Your task to perform on an android device: Open Maps and search for coffee Image 0: 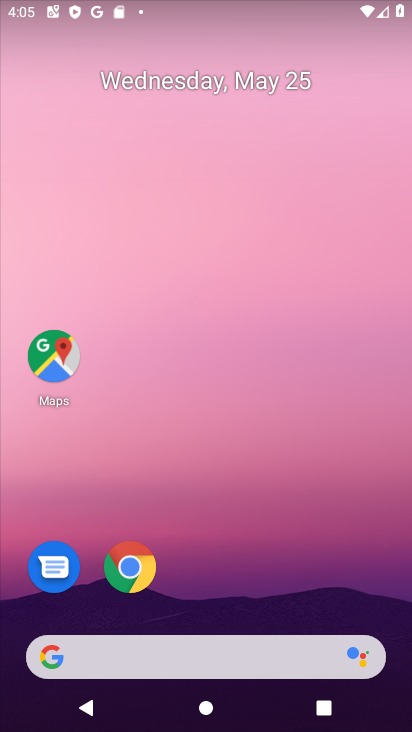
Step 0: drag from (248, 497) to (213, 34)
Your task to perform on an android device: Open Maps and search for coffee Image 1: 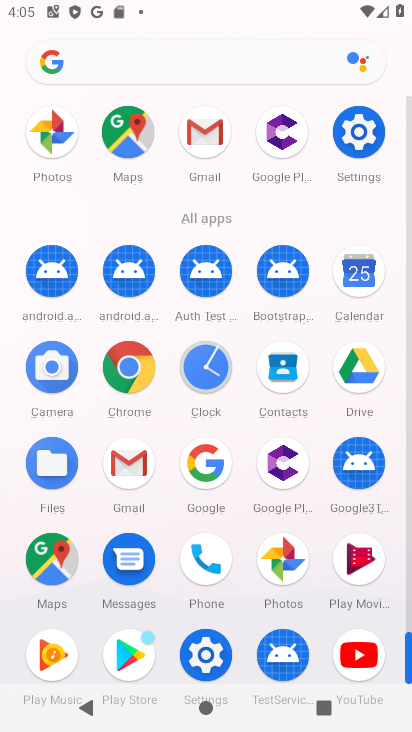
Step 1: drag from (1, 530) to (22, 261)
Your task to perform on an android device: Open Maps and search for coffee Image 2: 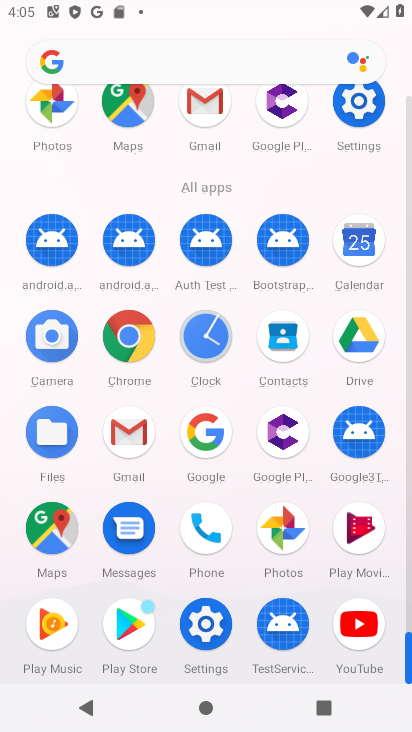
Step 2: click (51, 535)
Your task to perform on an android device: Open Maps and search for coffee Image 3: 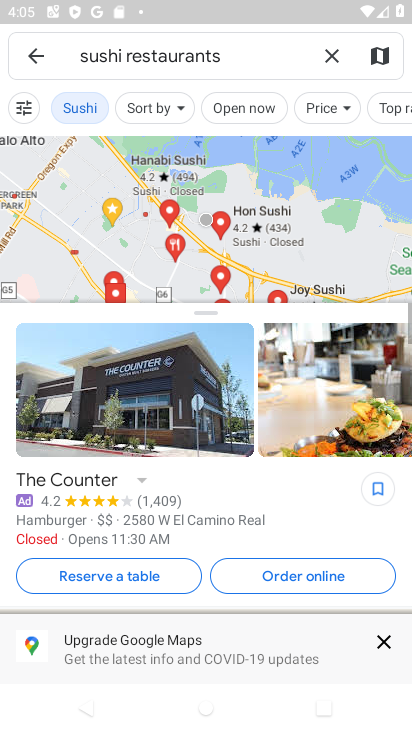
Step 3: click (334, 55)
Your task to perform on an android device: Open Maps and search for coffee Image 4: 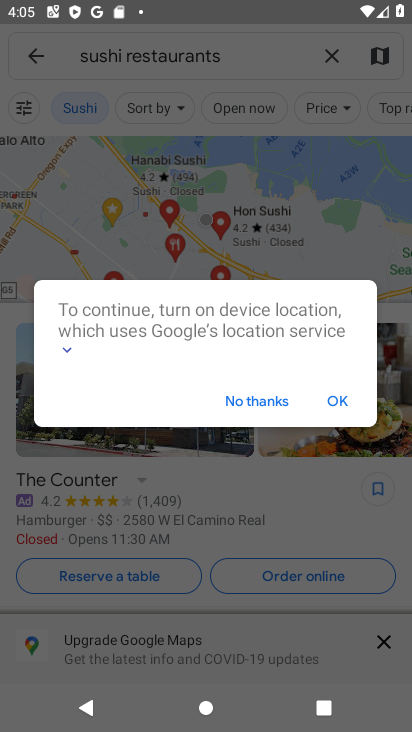
Step 4: click (260, 405)
Your task to perform on an android device: Open Maps and search for coffee Image 5: 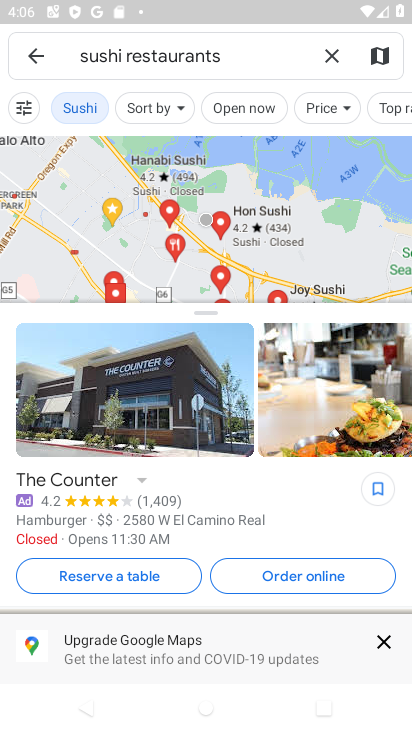
Step 5: click (335, 50)
Your task to perform on an android device: Open Maps and search for coffee Image 6: 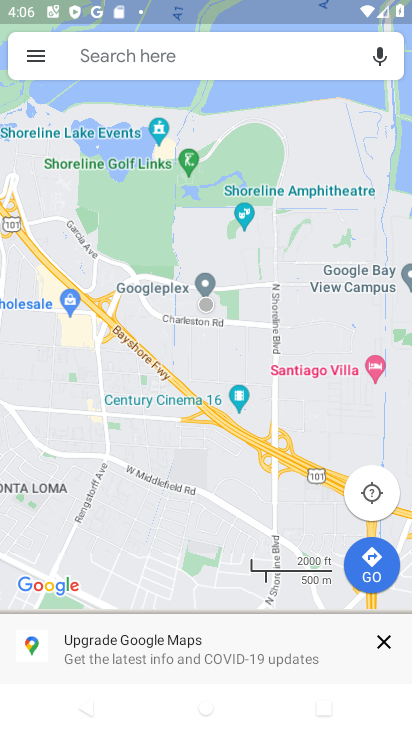
Step 6: click (228, 53)
Your task to perform on an android device: Open Maps and search for coffee Image 7: 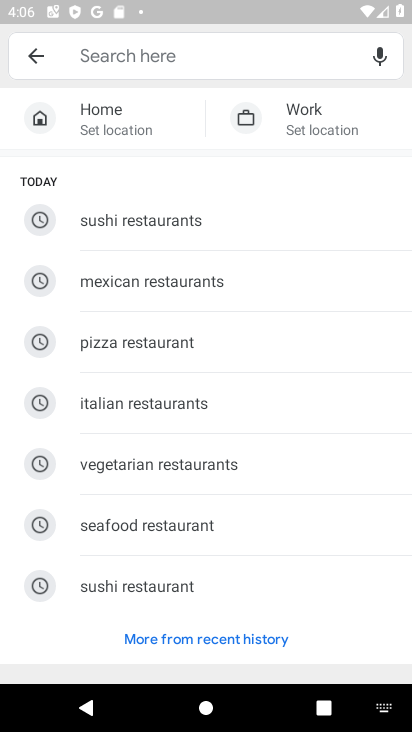
Step 7: type "coffee"
Your task to perform on an android device: Open Maps and search for coffee Image 8: 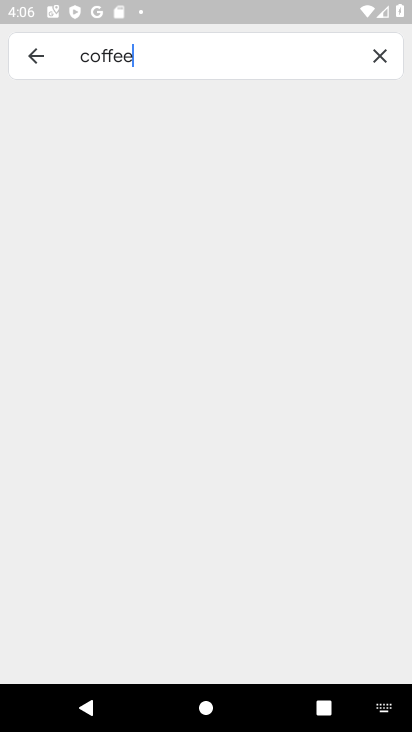
Step 8: type ""
Your task to perform on an android device: Open Maps and search for coffee Image 9: 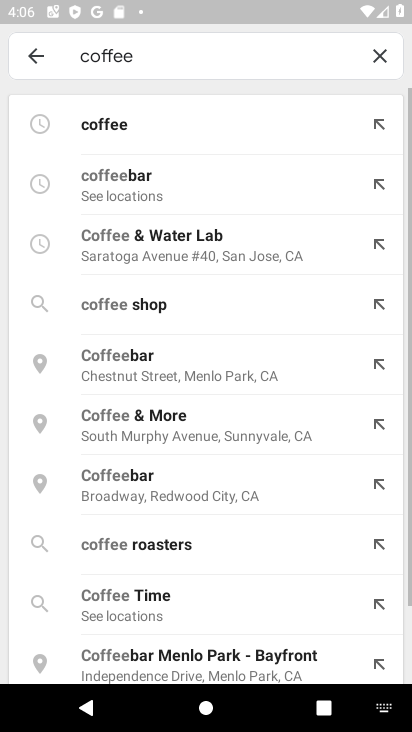
Step 9: click (153, 131)
Your task to perform on an android device: Open Maps and search for coffee Image 10: 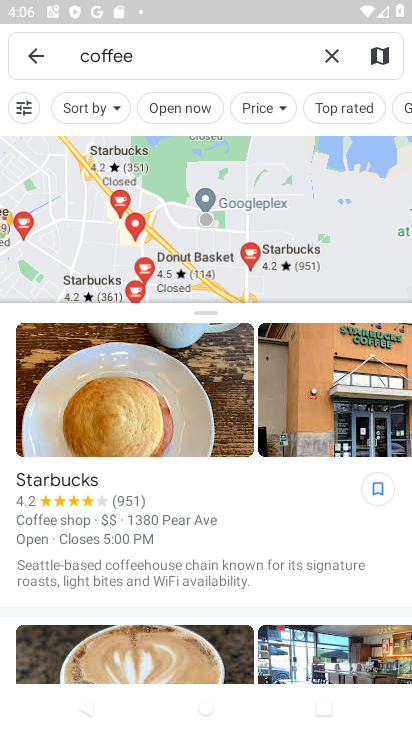
Step 10: task complete